Your task to perform on an android device: What's the weather? Image 0: 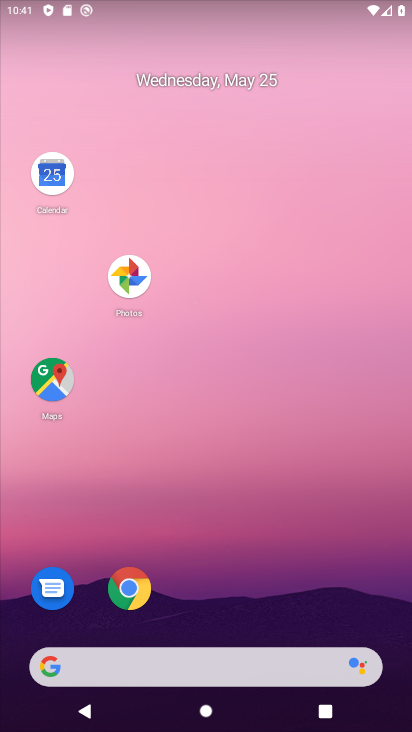
Step 0: drag from (234, 605) to (288, 229)
Your task to perform on an android device: What's the weather? Image 1: 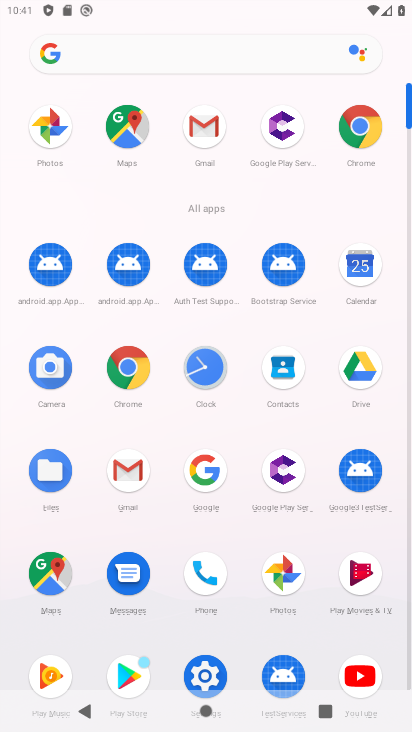
Step 1: drag from (207, 460) to (77, 321)
Your task to perform on an android device: What's the weather? Image 2: 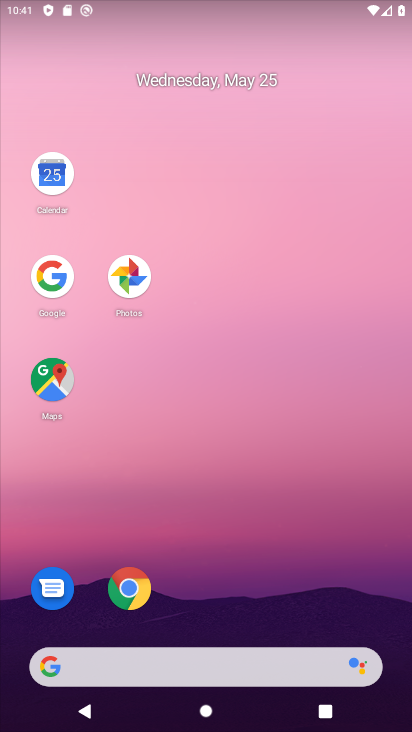
Step 2: click (57, 281)
Your task to perform on an android device: What's the weather? Image 3: 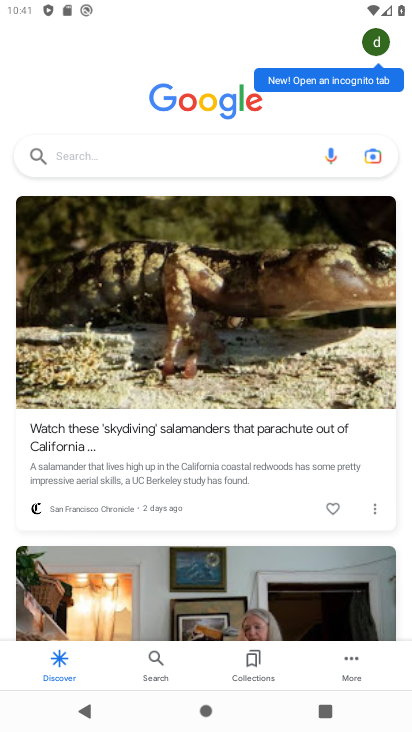
Step 3: click (138, 162)
Your task to perform on an android device: What's the weather? Image 4: 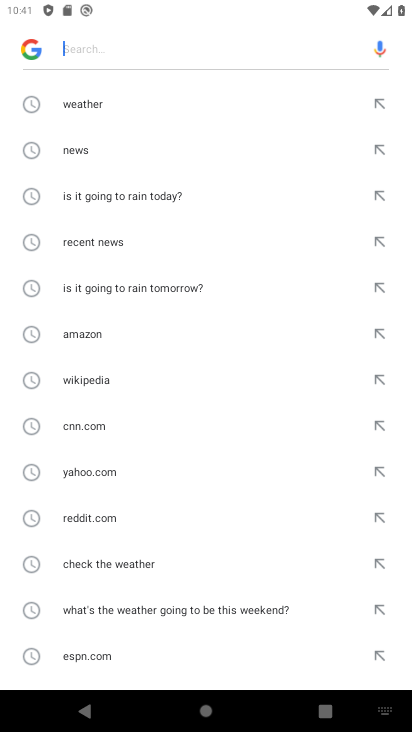
Step 4: click (97, 108)
Your task to perform on an android device: What's the weather? Image 5: 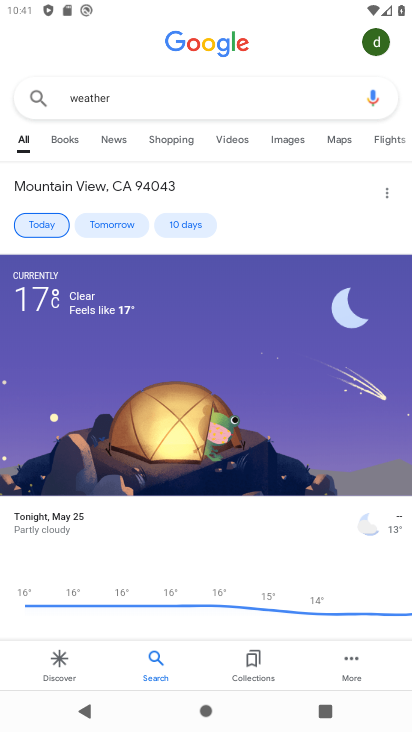
Step 5: task complete